Your task to perform on an android device: move an email to a new category in the gmail app Image 0: 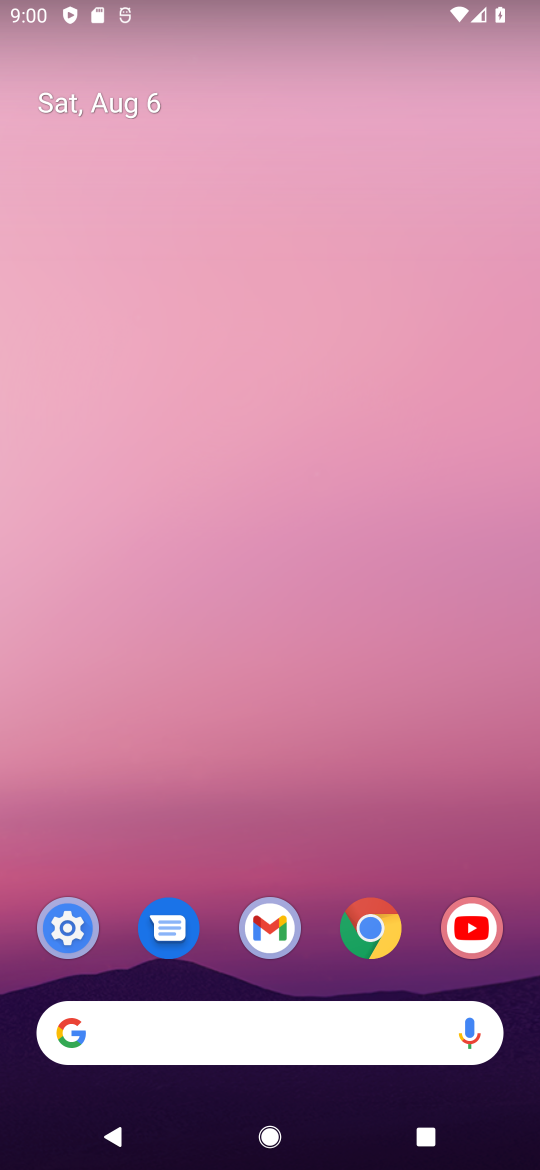
Step 0: click (270, 922)
Your task to perform on an android device: move an email to a new category in the gmail app Image 1: 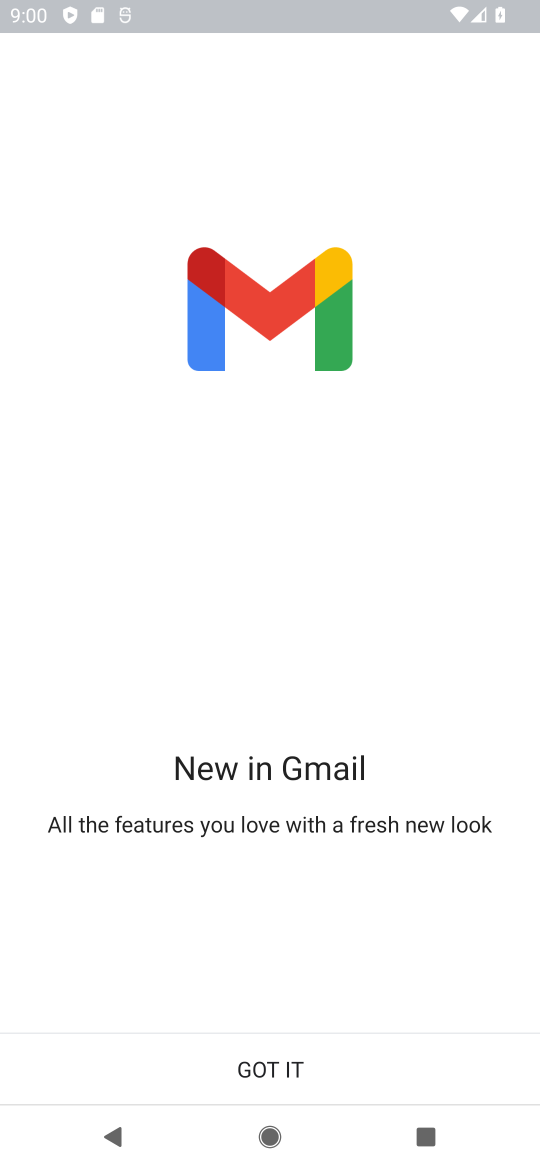
Step 1: click (271, 1050)
Your task to perform on an android device: move an email to a new category in the gmail app Image 2: 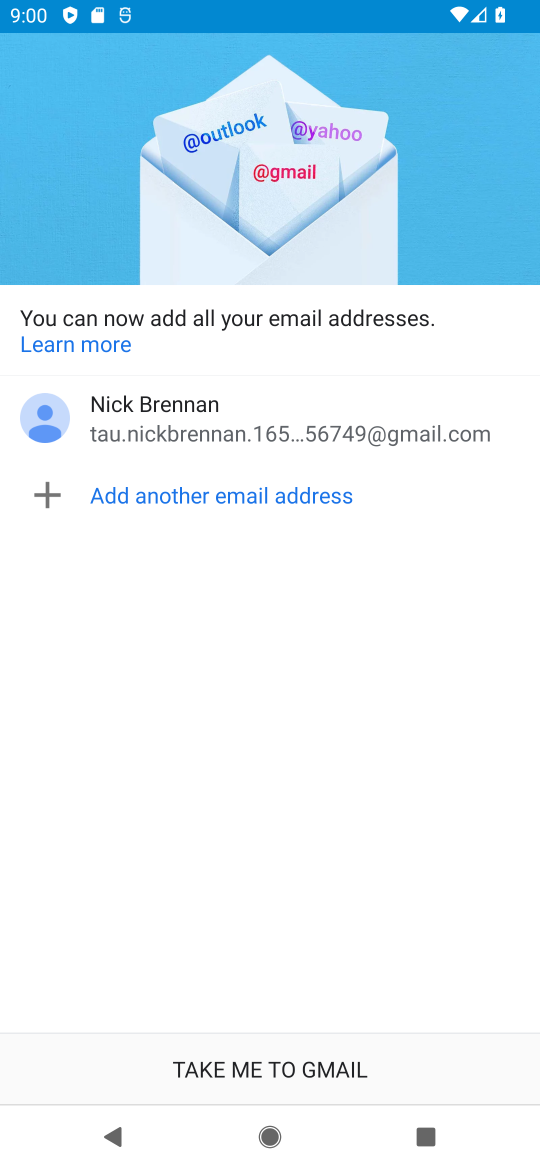
Step 2: click (273, 1069)
Your task to perform on an android device: move an email to a new category in the gmail app Image 3: 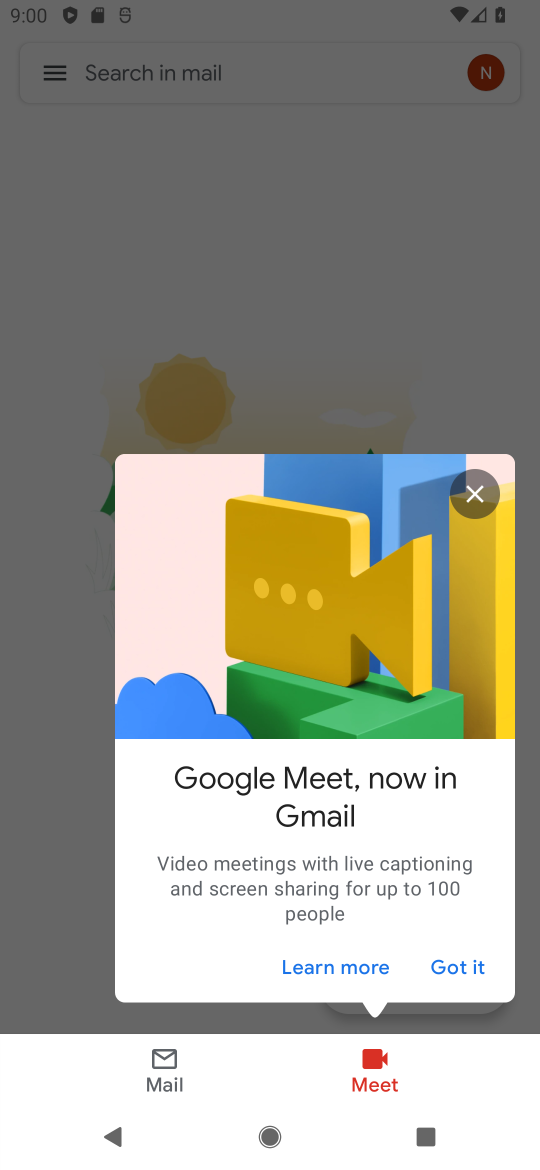
Step 3: click (466, 957)
Your task to perform on an android device: move an email to a new category in the gmail app Image 4: 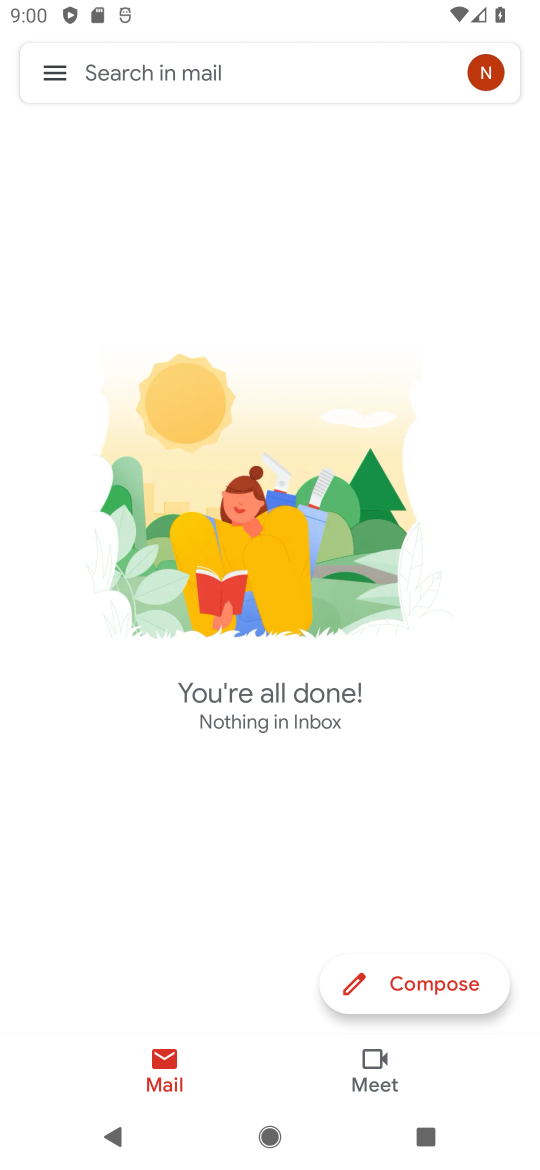
Step 4: click (57, 70)
Your task to perform on an android device: move an email to a new category in the gmail app Image 5: 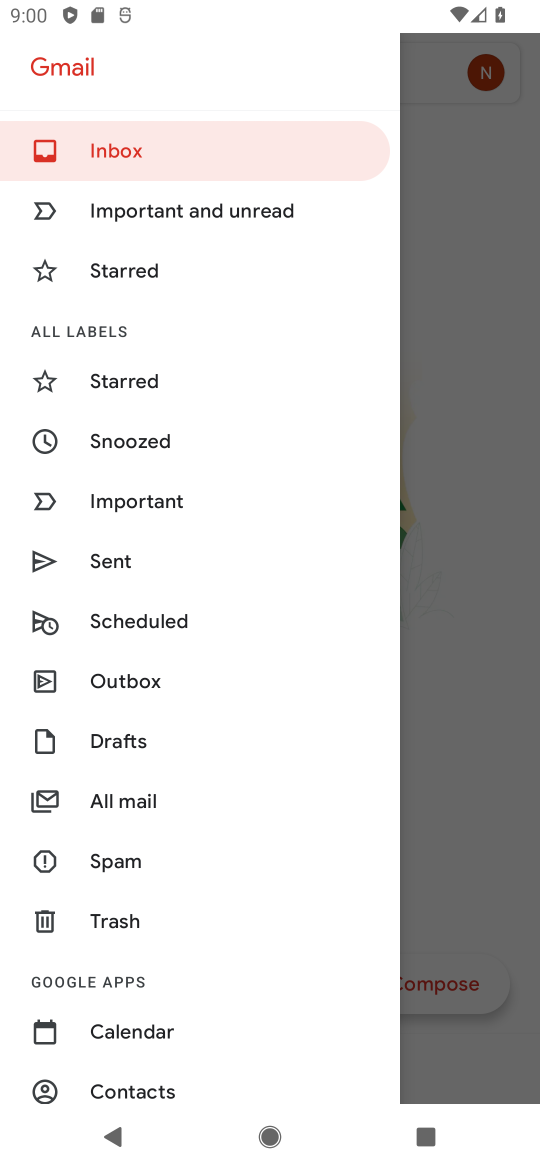
Step 5: click (125, 799)
Your task to perform on an android device: move an email to a new category in the gmail app Image 6: 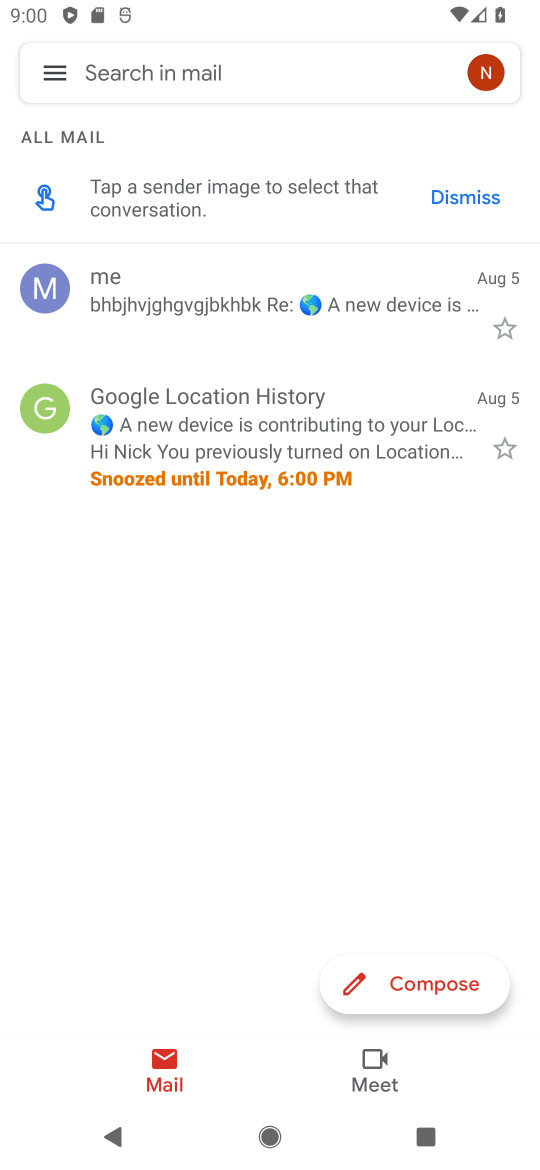
Step 6: click (218, 275)
Your task to perform on an android device: move an email to a new category in the gmail app Image 7: 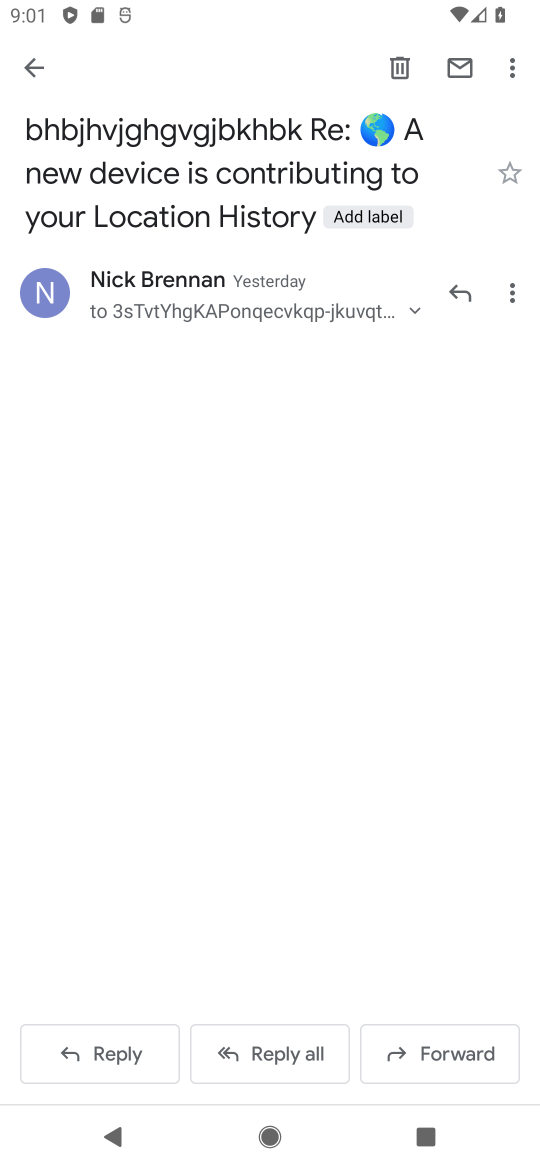
Step 7: click (506, 68)
Your task to perform on an android device: move an email to a new category in the gmail app Image 8: 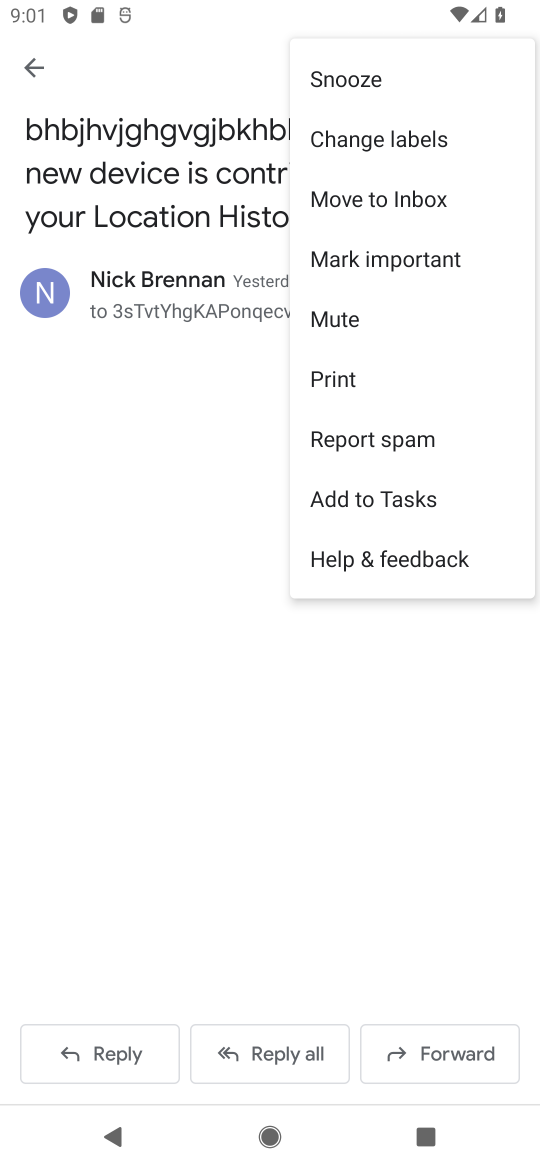
Step 8: click (373, 195)
Your task to perform on an android device: move an email to a new category in the gmail app Image 9: 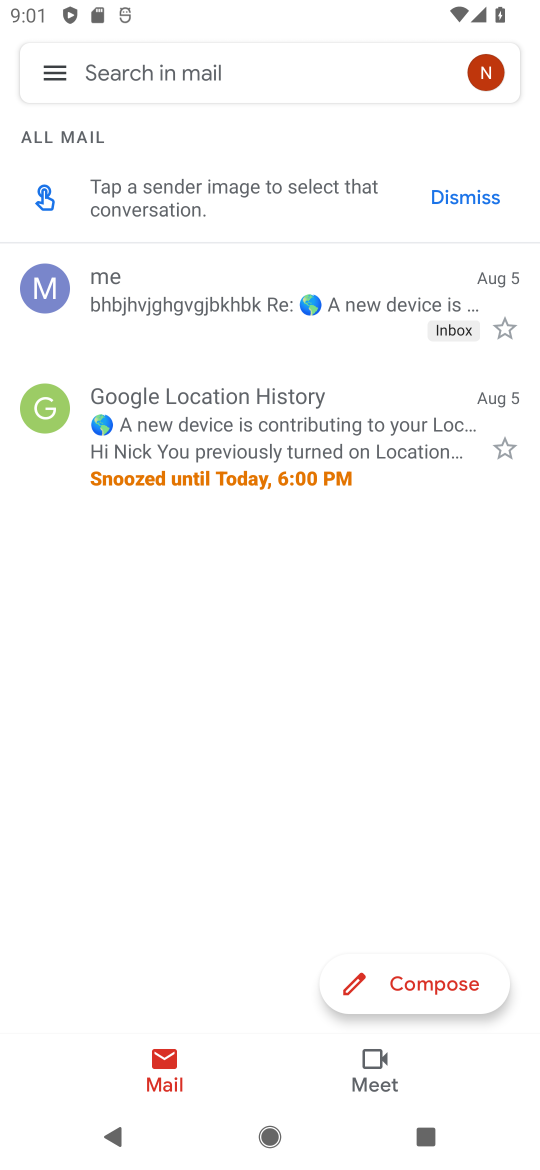
Step 9: task complete